Your task to perform on an android device: turn vacation reply on in the gmail app Image 0: 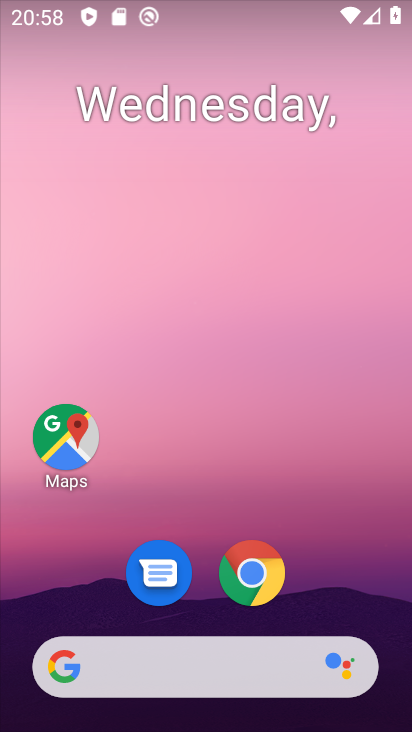
Step 0: drag from (329, 393) to (322, 251)
Your task to perform on an android device: turn vacation reply on in the gmail app Image 1: 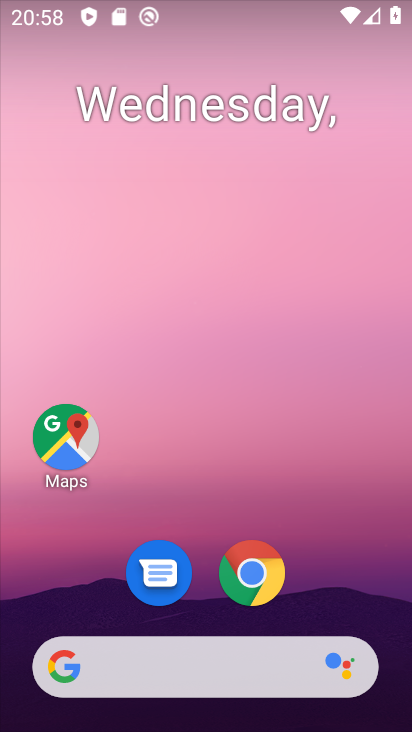
Step 1: drag from (366, 365) to (365, 211)
Your task to perform on an android device: turn vacation reply on in the gmail app Image 2: 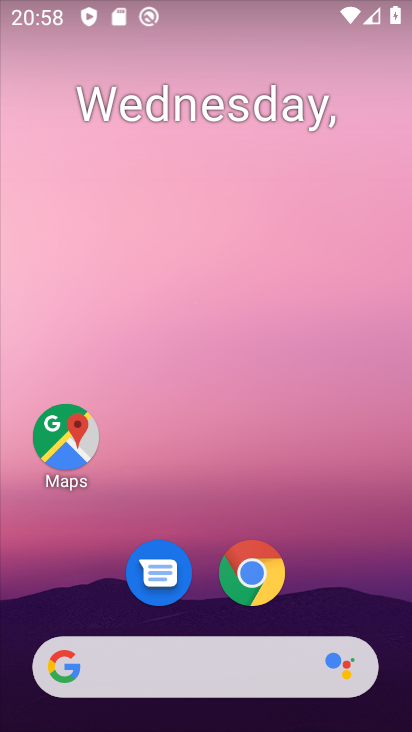
Step 2: drag from (380, 358) to (380, 206)
Your task to perform on an android device: turn vacation reply on in the gmail app Image 3: 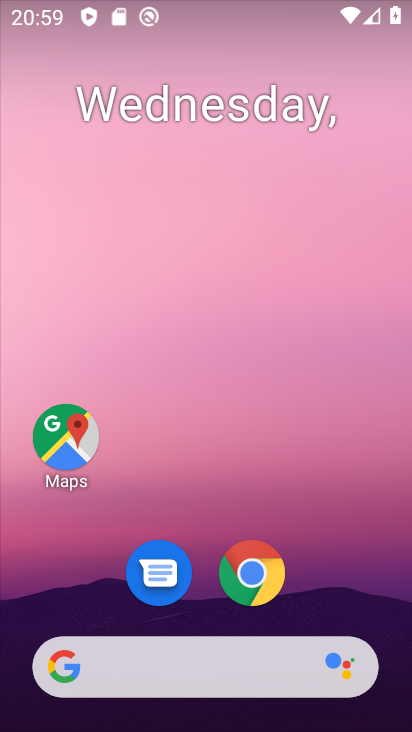
Step 3: drag from (361, 335) to (365, 173)
Your task to perform on an android device: turn vacation reply on in the gmail app Image 4: 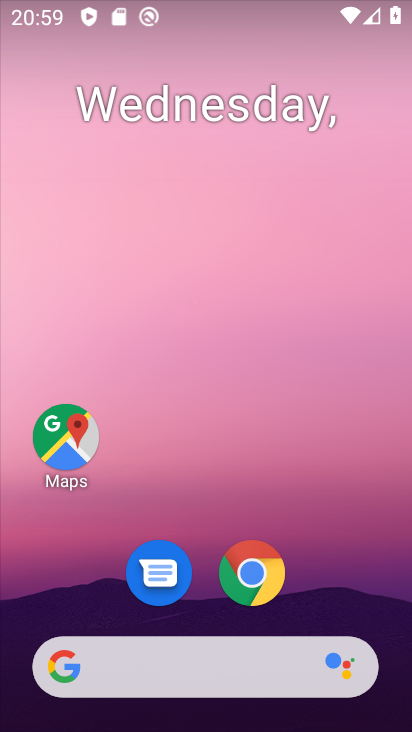
Step 4: click (368, 288)
Your task to perform on an android device: turn vacation reply on in the gmail app Image 5: 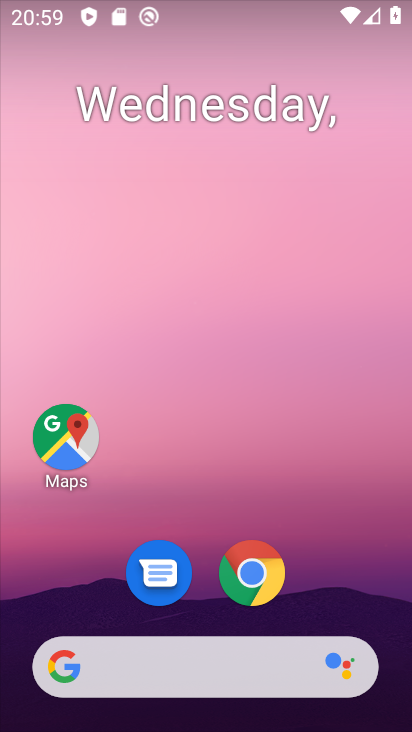
Step 5: drag from (389, 573) to (356, 185)
Your task to perform on an android device: turn vacation reply on in the gmail app Image 6: 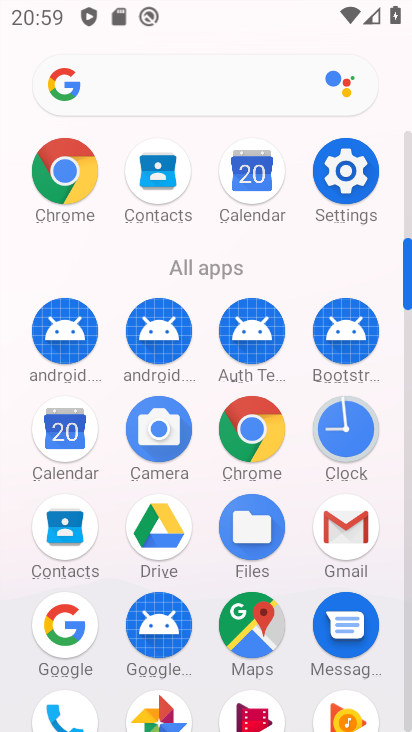
Step 6: click (358, 522)
Your task to perform on an android device: turn vacation reply on in the gmail app Image 7: 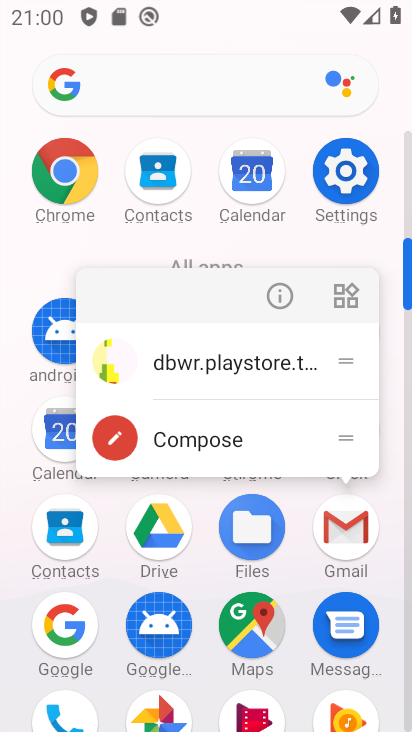
Step 7: click (341, 181)
Your task to perform on an android device: turn vacation reply on in the gmail app Image 8: 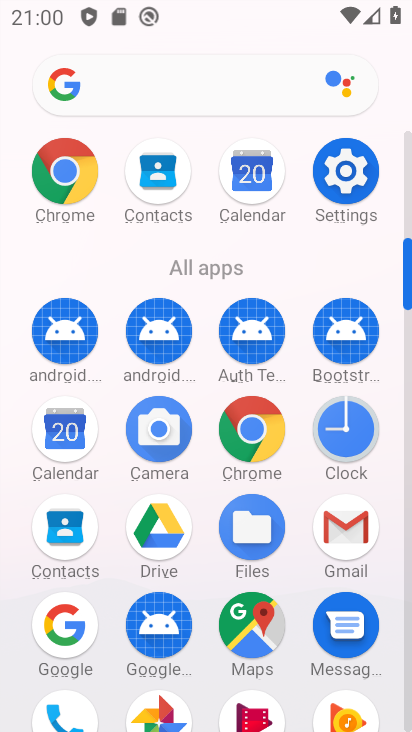
Step 8: click (353, 533)
Your task to perform on an android device: turn vacation reply on in the gmail app Image 9: 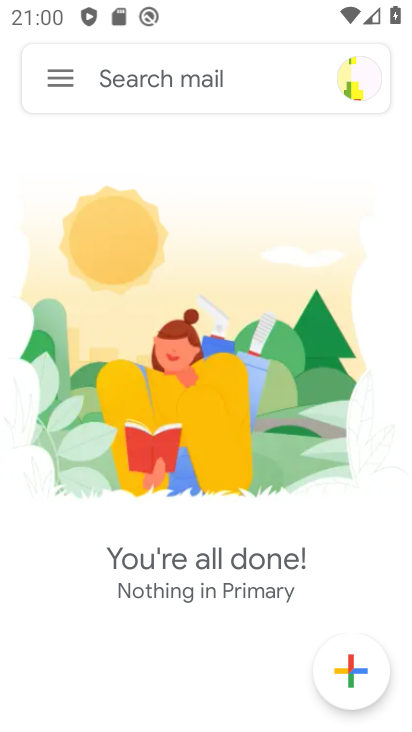
Step 9: click (58, 80)
Your task to perform on an android device: turn vacation reply on in the gmail app Image 10: 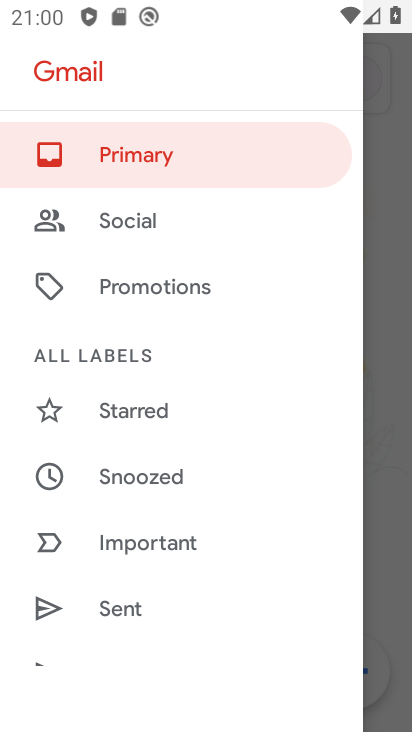
Step 10: drag from (258, 462) to (262, 333)
Your task to perform on an android device: turn vacation reply on in the gmail app Image 11: 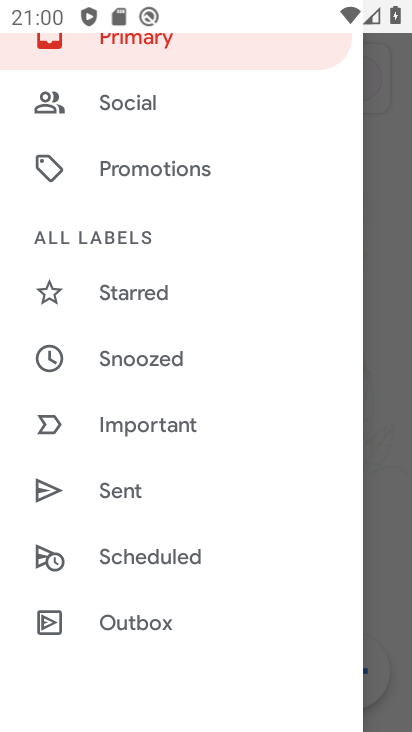
Step 11: drag from (268, 654) to (268, 287)
Your task to perform on an android device: turn vacation reply on in the gmail app Image 12: 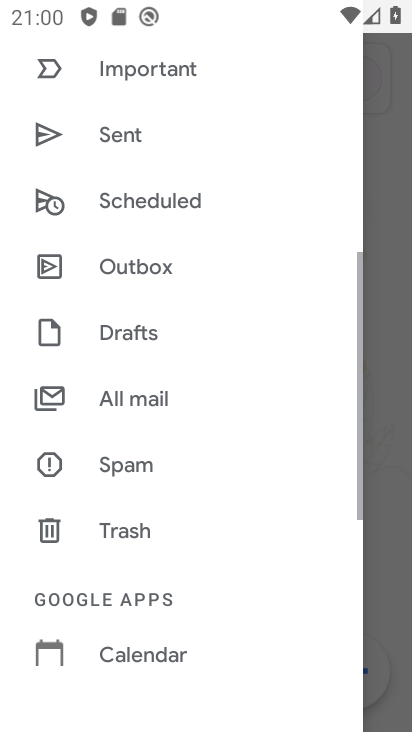
Step 12: drag from (260, 460) to (246, 282)
Your task to perform on an android device: turn vacation reply on in the gmail app Image 13: 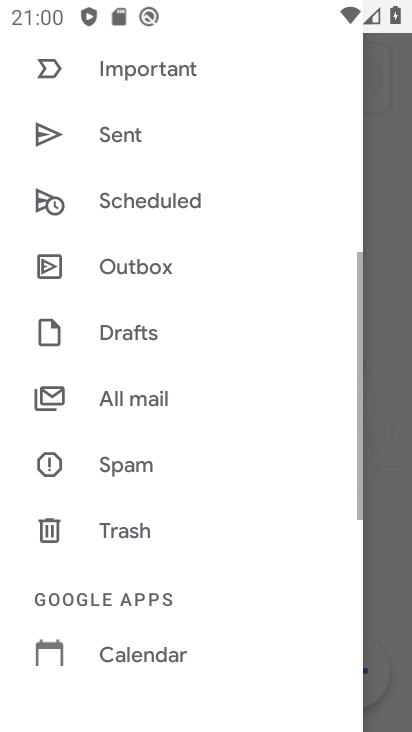
Step 13: drag from (248, 633) to (244, 251)
Your task to perform on an android device: turn vacation reply on in the gmail app Image 14: 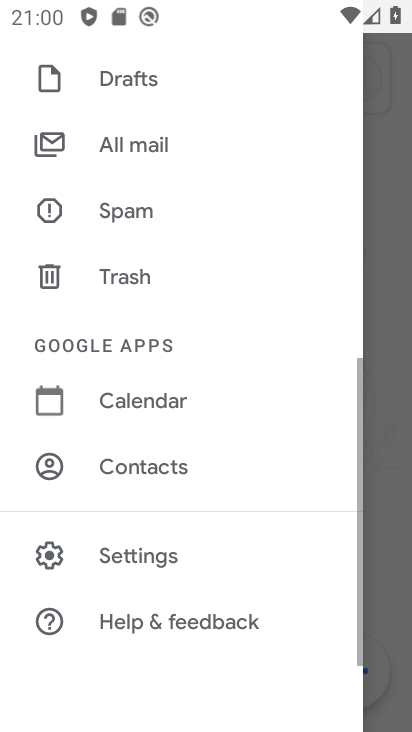
Step 14: drag from (278, 417) to (274, 296)
Your task to perform on an android device: turn vacation reply on in the gmail app Image 15: 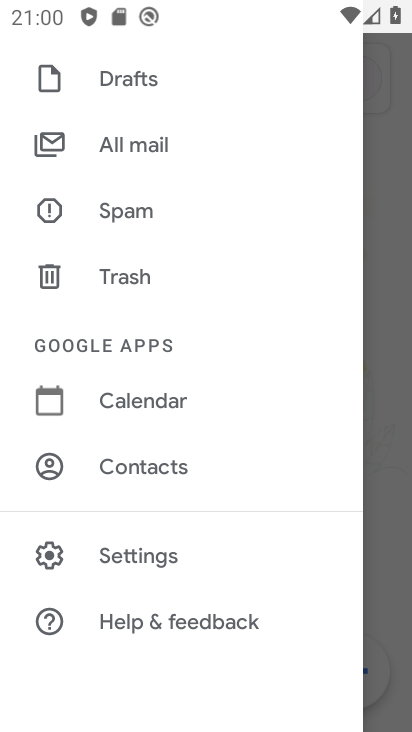
Step 15: click (117, 551)
Your task to perform on an android device: turn vacation reply on in the gmail app Image 16: 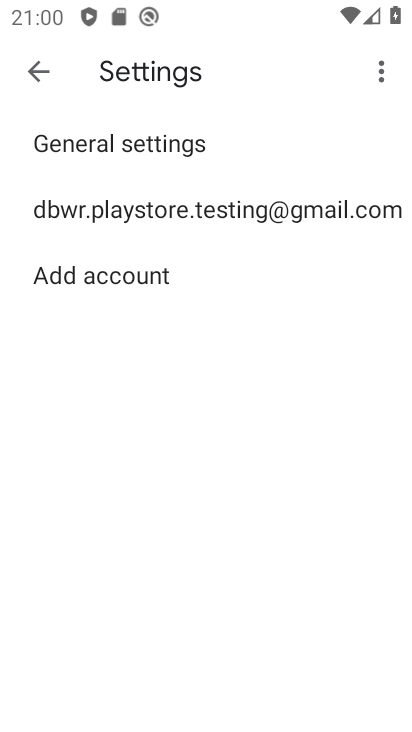
Step 16: click (116, 206)
Your task to perform on an android device: turn vacation reply on in the gmail app Image 17: 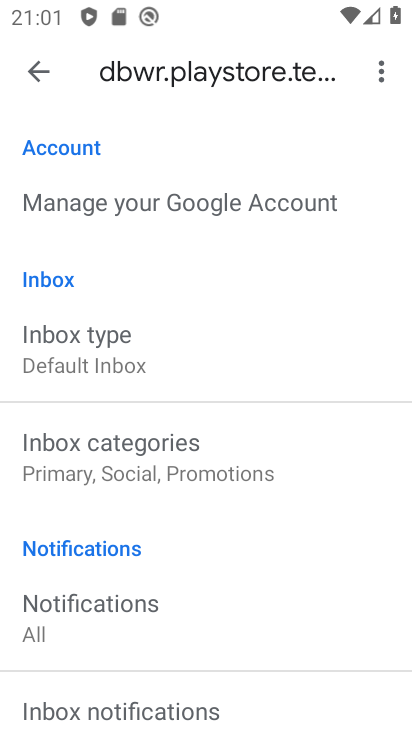
Step 17: task complete